Your task to perform on an android device: Go to privacy settings Image 0: 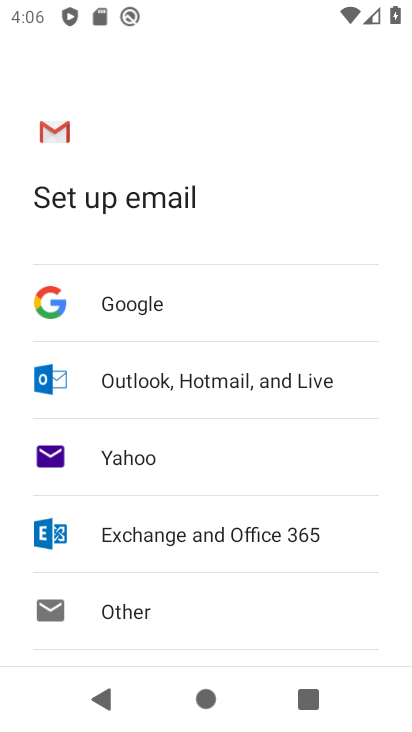
Step 0: press home button
Your task to perform on an android device: Go to privacy settings Image 1: 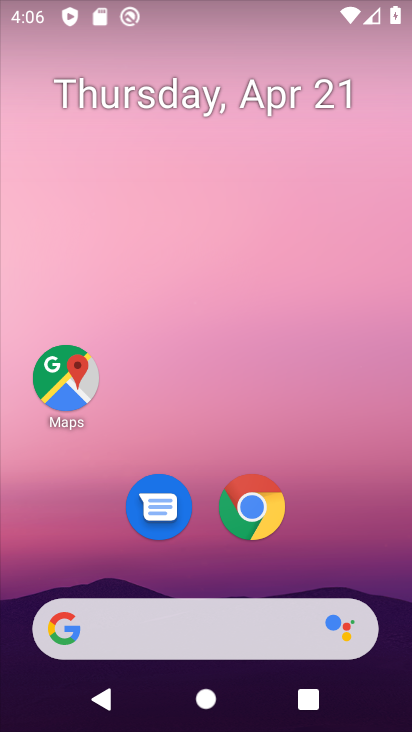
Step 1: click (259, 507)
Your task to perform on an android device: Go to privacy settings Image 2: 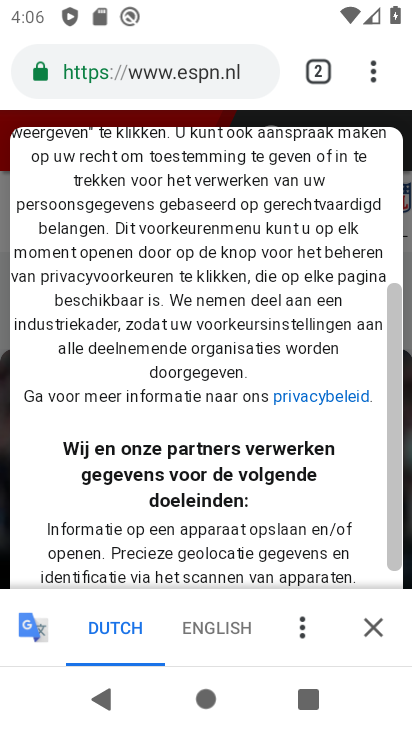
Step 2: click (373, 74)
Your task to perform on an android device: Go to privacy settings Image 3: 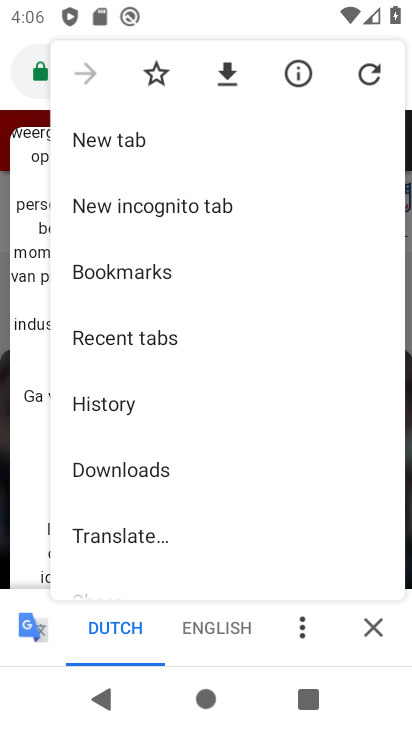
Step 3: drag from (161, 570) to (109, 253)
Your task to perform on an android device: Go to privacy settings Image 4: 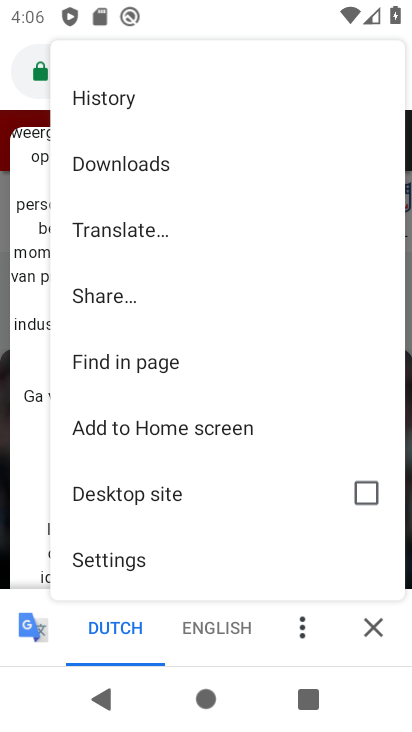
Step 4: click (161, 557)
Your task to perform on an android device: Go to privacy settings Image 5: 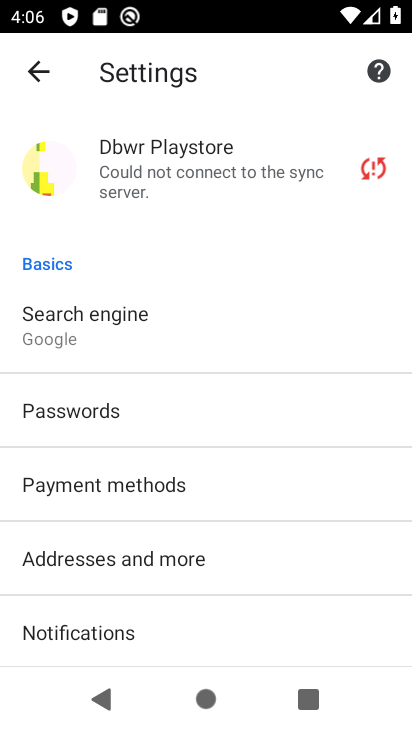
Step 5: drag from (199, 628) to (152, 298)
Your task to perform on an android device: Go to privacy settings Image 6: 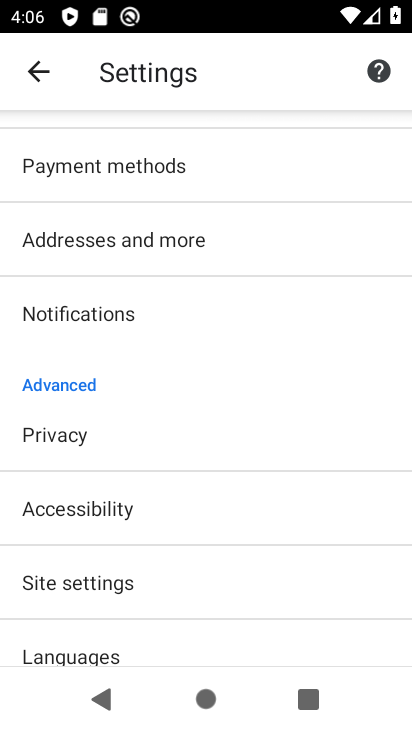
Step 6: click (193, 441)
Your task to perform on an android device: Go to privacy settings Image 7: 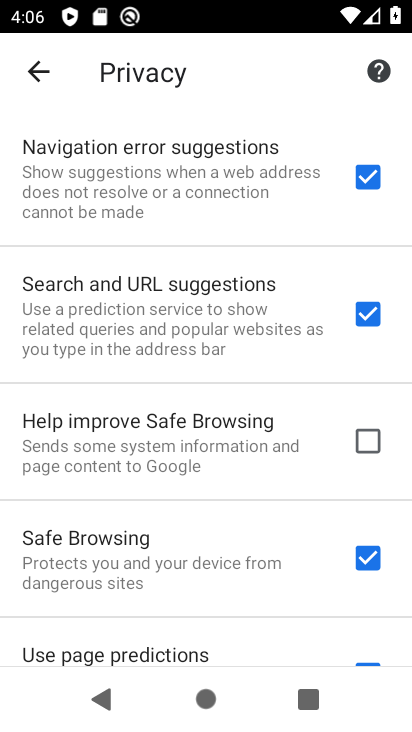
Step 7: task complete